Your task to perform on an android device: What's on my calendar today? Image 0: 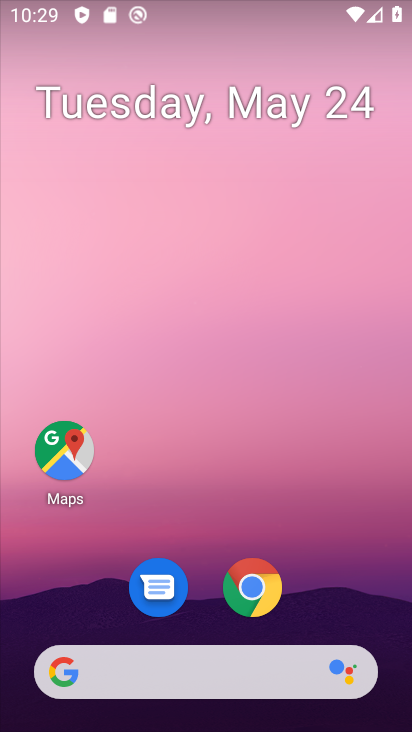
Step 0: drag from (306, 647) to (173, 138)
Your task to perform on an android device: What's on my calendar today? Image 1: 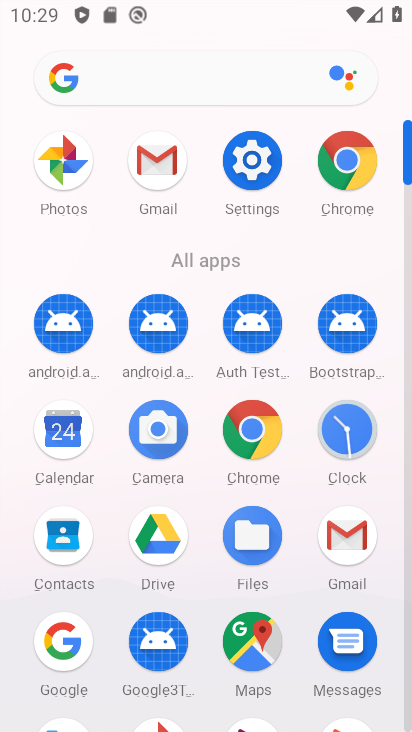
Step 1: click (56, 428)
Your task to perform on an android device: What's on my calendar today? Image 2: 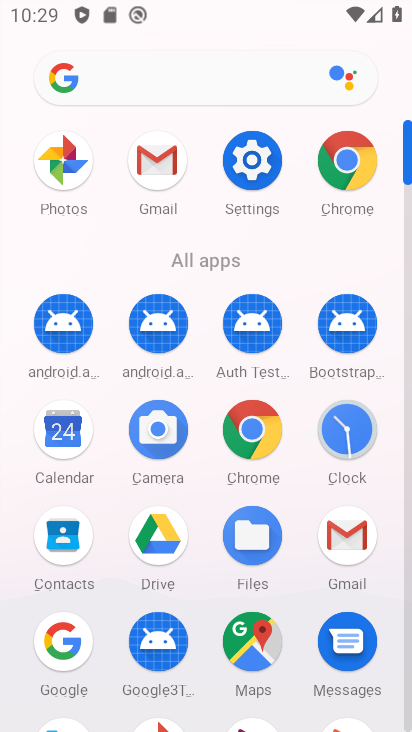
Step 2: click (56, 428)
Your task to perform on an android device: What's on my calendar today? Image 3: 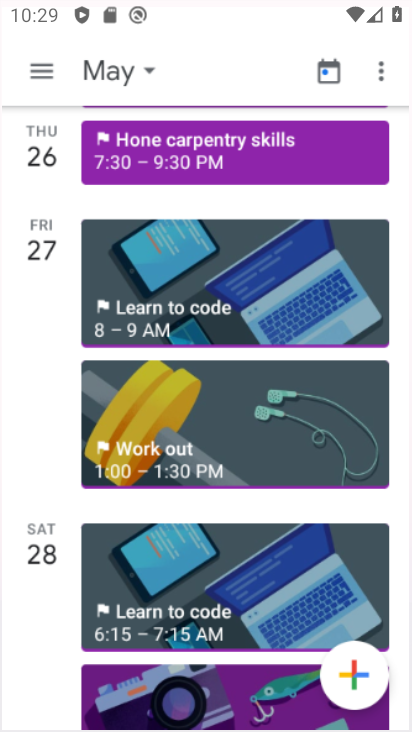
Step 3: click (56, 428)
Your task to perform on an android device: What's on my calendar today? Image 4: 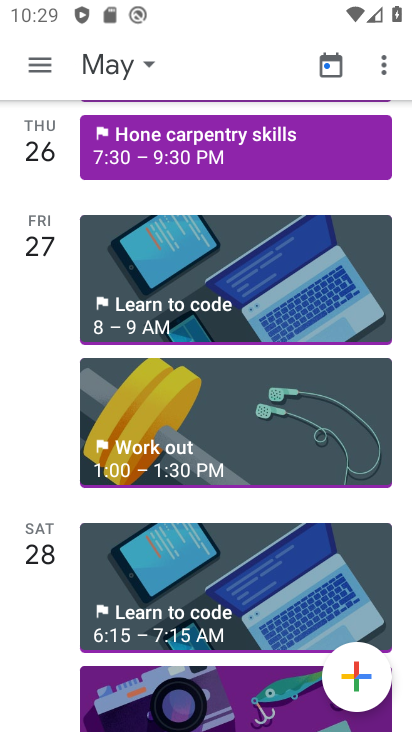
Step 4: press back button
Your task to perform on an android device: What's on my calendar today? Image 5: 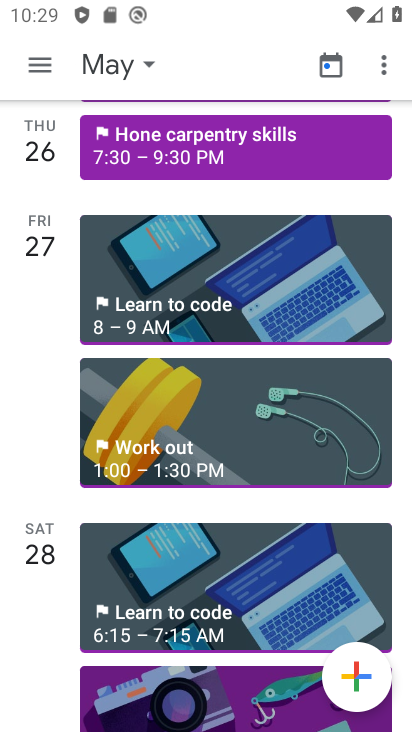
Step 5: press back button
Your task to perform on an android device: What's on my calendar today? Image 6: 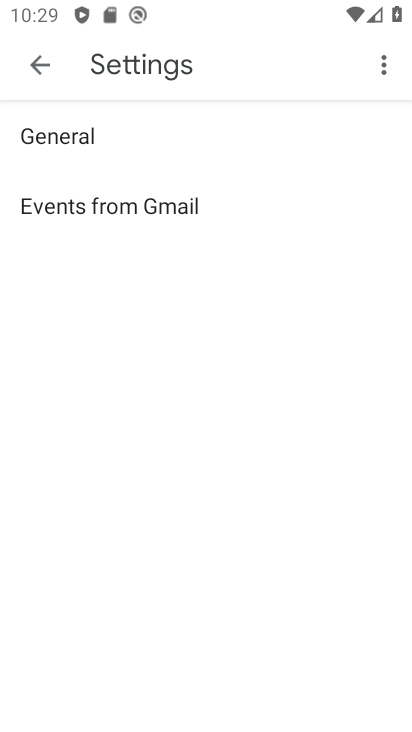
Step 6: press back button
Your task to perform on an android device: What's on my calendar today? Image 7: 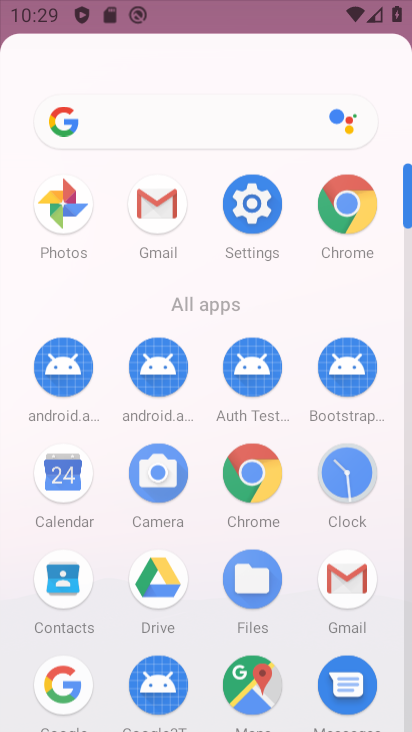
Step 7: press back button
Your task to perform on an android device: What's on my calendar today? Image 8: 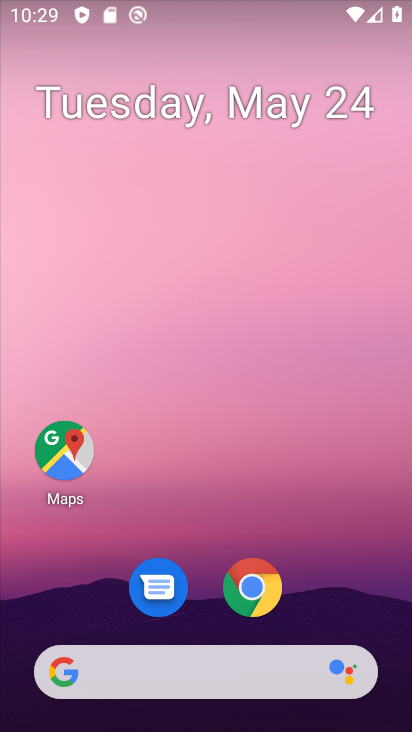
Step 8: drag from (267, 698) to (166, 163)
Your task to perform on an android device: What's on my calendar today? Image 9: 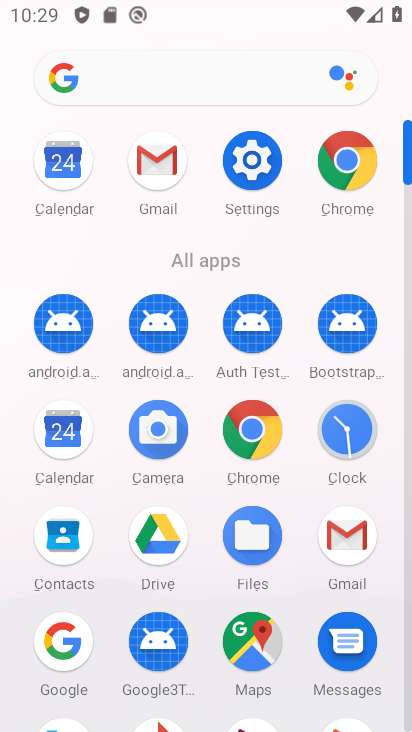
Step 9: click (61, 440)
Your task to perform on an android device: What's on my calendar today? Image 10: 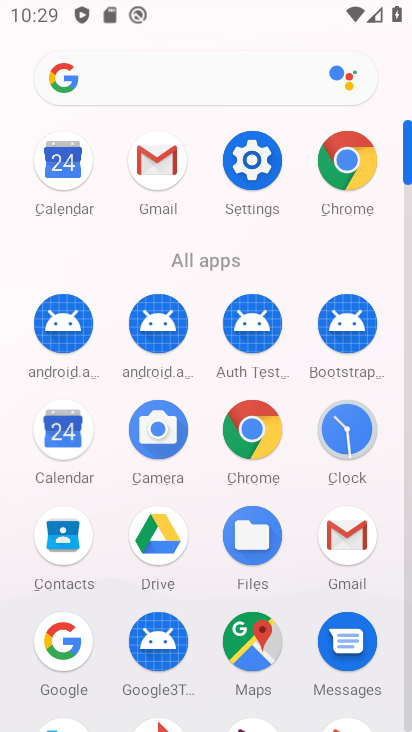
Step 10: click (62, 438)
Your task to perform on an android device: What's on my calendar today? Image 11: 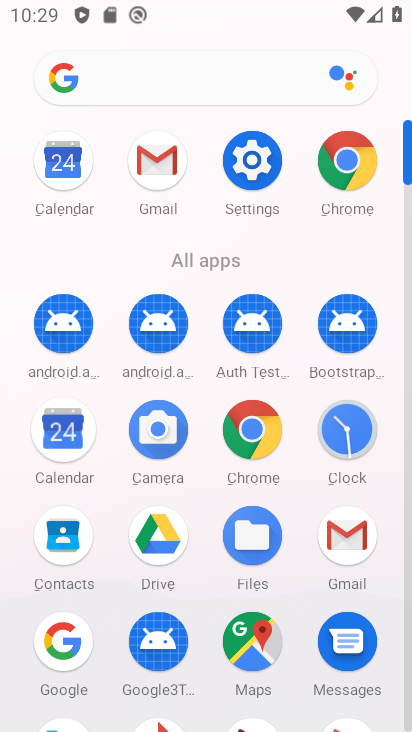
Step 11: click (64, 434)
Your task to perform on an android device: What's on my calendar today? Image 12: 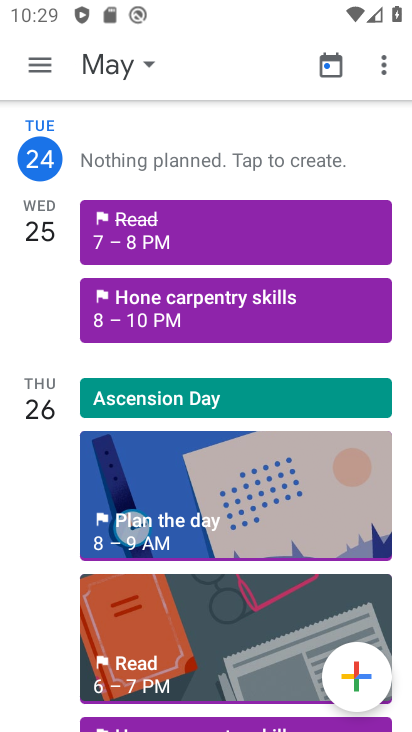
Step 12: drag from (234, 555) to (186, 81)
Your task to perform on an android device: What's on my calendar today? Image 13: 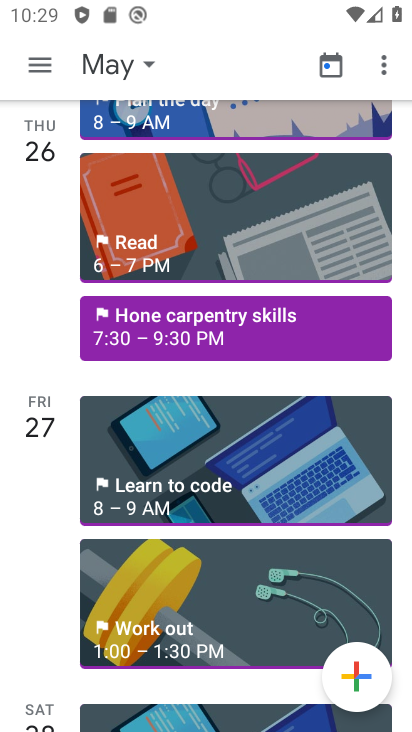
Step 13: drag from (213, 512) to (226, 148)
Your task to perform on an android device: What's on my calendar today? Image 14: 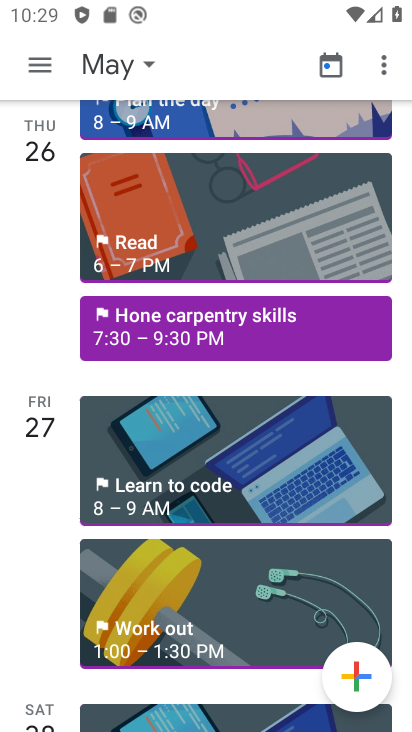
Step 14: drag from (213, 512) to (213, 81)
Your task to perform on an android device: What's on my calendar today? Image 15: 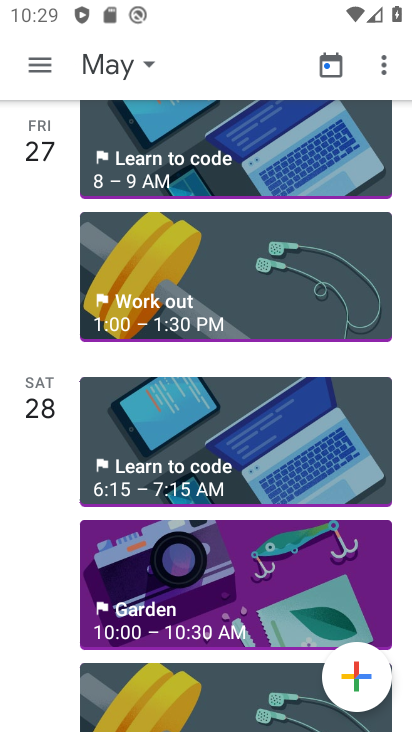
Step 15: drag from (247, 475) to (234, 38)
Your task to perform on an android device: What's on my calendar today? Image 16: 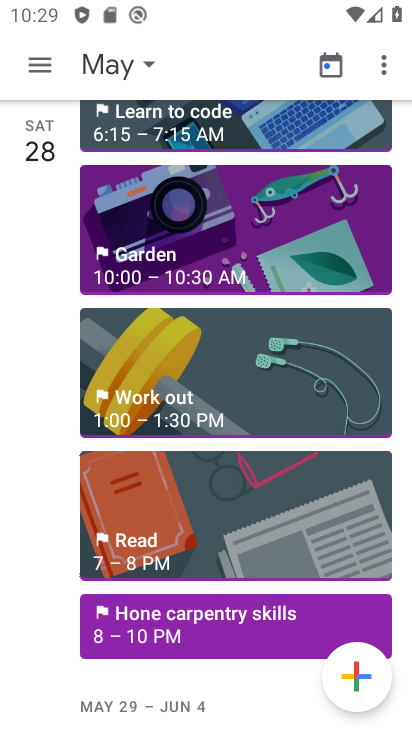
Step 16: drag from (177, 507) to (217, 94)
Your task to perform on an android device: What's on my calendar today? Image 17: 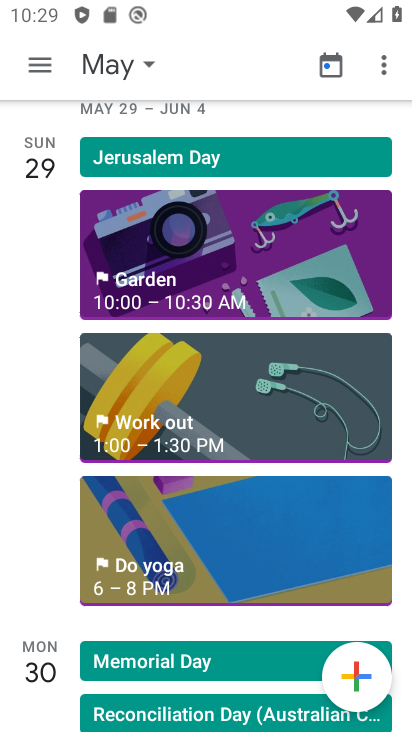
Step 17: drag from (194, 404) to (193, 69)
Your task to perform on an android device: What's on my calendar today? Image 18: 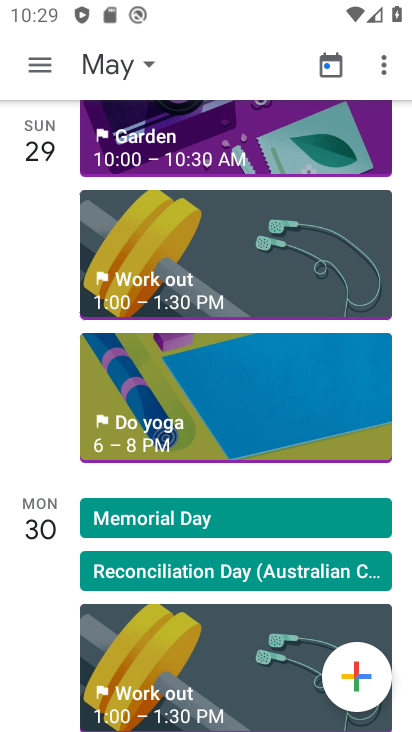
Step 18: drag from (200, 515) to (178, 152)
Your task to perform on an android device: What's on my calendar today? Image 19: 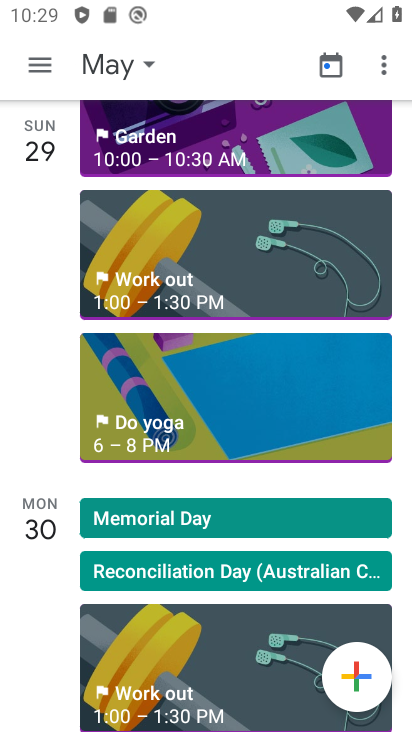
Step 19: drag from (157, 570) to (169, 148)
Your task to perform on an android device: What's on my calendar today? Image 20: 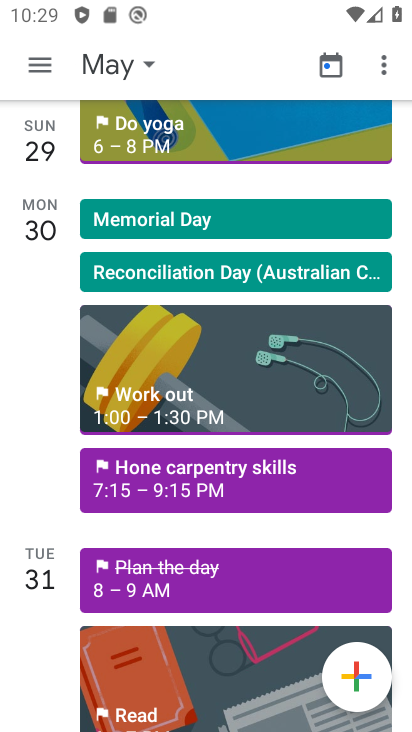
Step 20: drag from (180, 538) to (180, 296)
Your task to perform on an android device: What's on my calendar today? Image 21: 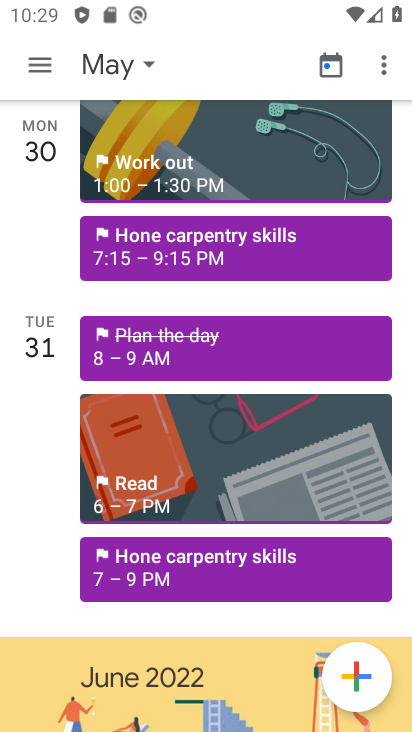
Step 21: drag from (207, 592) to (219, 196)
Your task to perform on an android device: What's on my calendar today? Image 22: 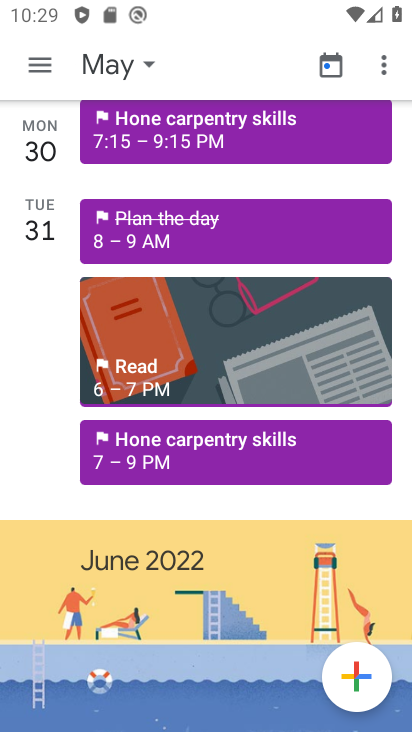
Step 22: drag from (202, 483) to (208, 201)
Your task to perform on an android device: What's on my calendar today? Image 23: 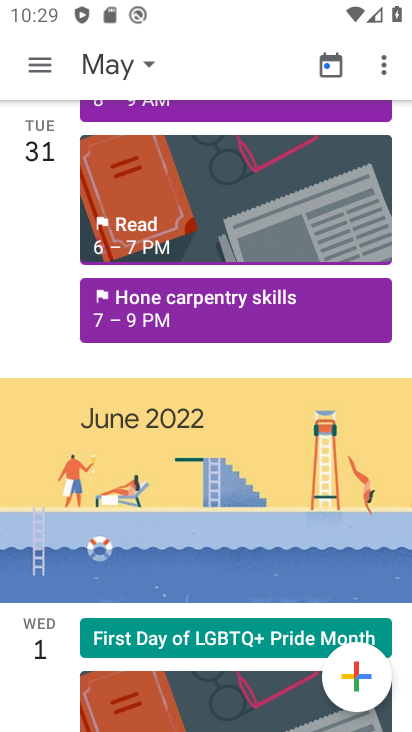
Step 23: drag from (193, 502) to (192, 124)
Your task to perform on an android device: What's on my calendar today? Image 24: 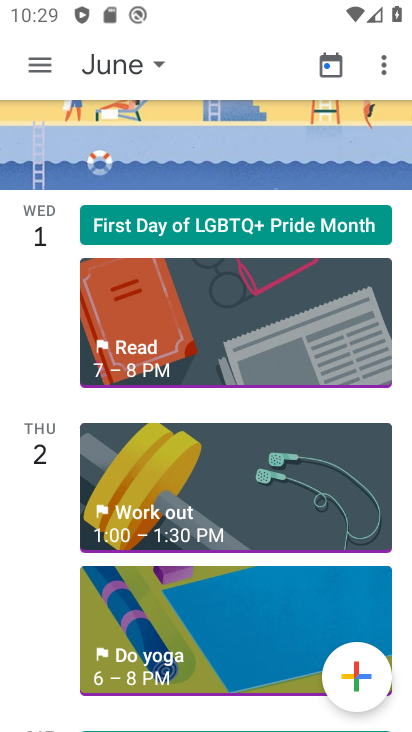
Step 24: drag from (192, 333) to (192, 105)
Your task to perform on an android device: What's on my calendar today? Image 25: 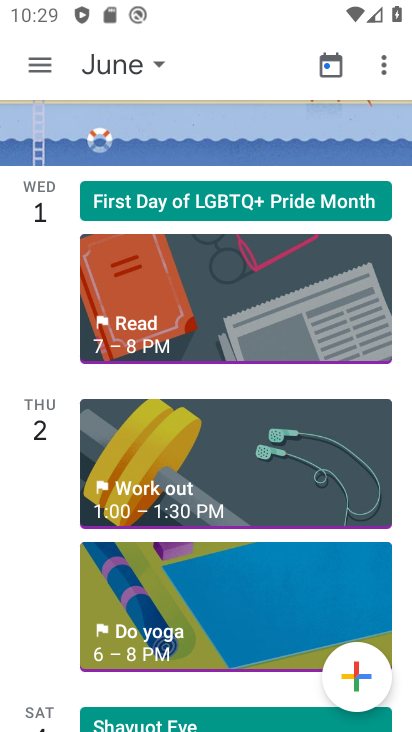
Step 25: drag from (186, 172) to (179, 615)
Your task to perform on an android device: What's on my calendar today? Image 26: 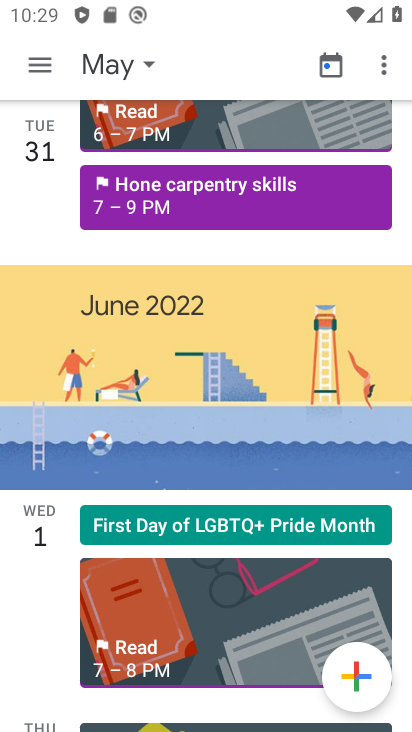
Step 26: drag from (97, 226) to (148, 538)
Your task to perform on an android device: What's on my calendar today? Image 27: 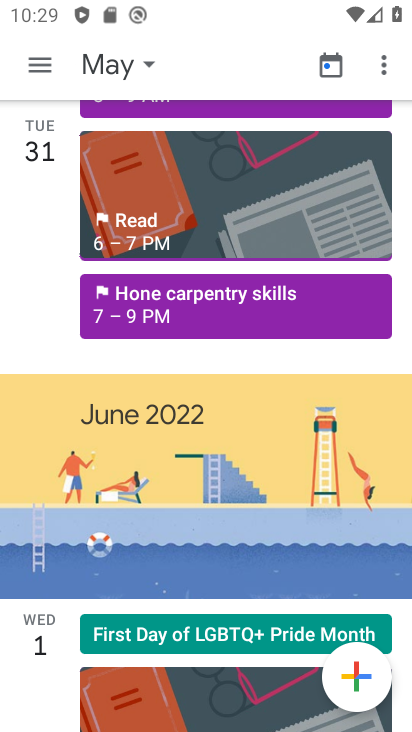
Step 27: drag from (165, 167) to (229, 503)
Your task to perform on an android device: What's on my calendar today? Image 28: 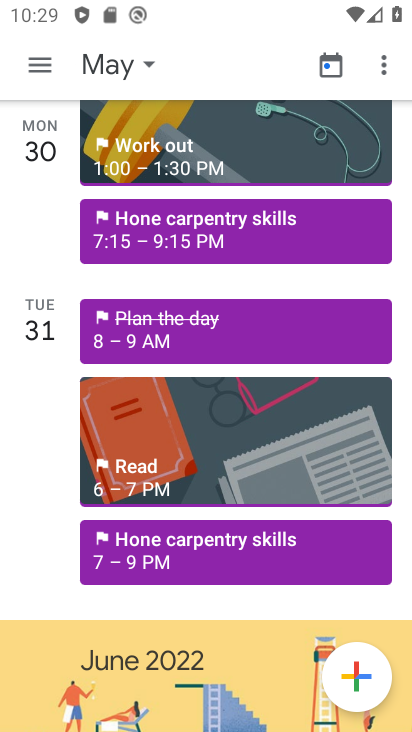
Step 28: drag from (176, 193) to (230, 610)
Your task to perform on an android device: What's on my calendar today? Image 29: 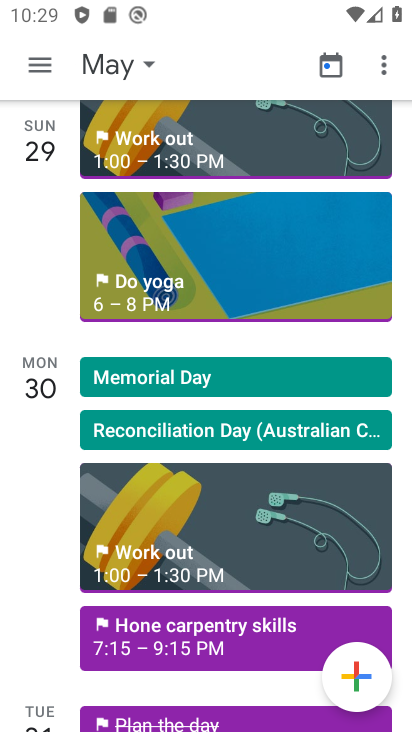
Step 29: click (206, 559)
Your task to perform on an android device: What's on my calendar today? Image 30: 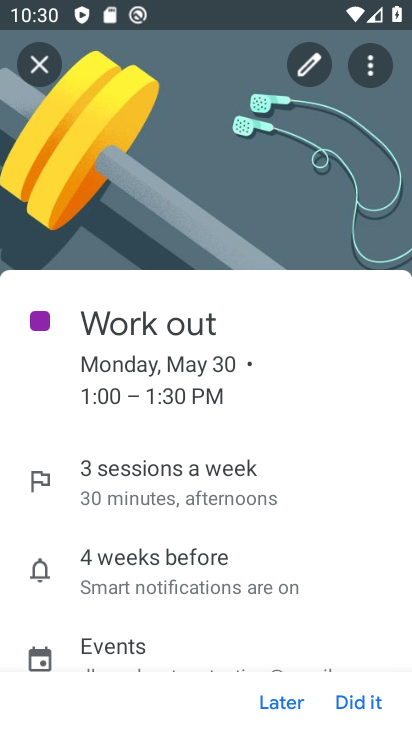
Step 30: task complete